Your task to perform on an android device: uninstall "Roku - Official Remote Control" Image 0: 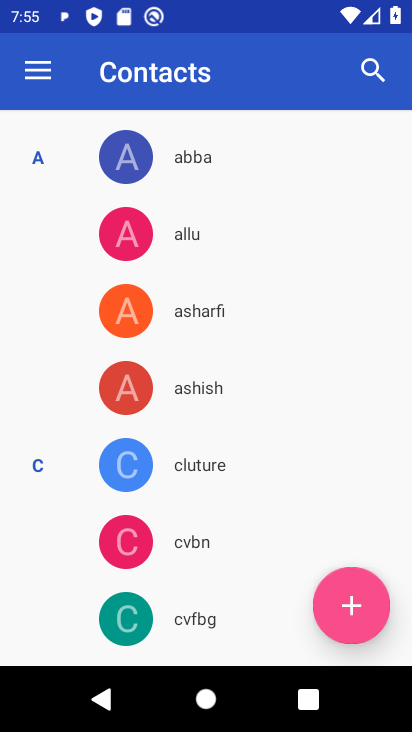
Step 0: press home button
Your task to perform on an android device: uninstall "Roku - Official Remote Control" Image 1: 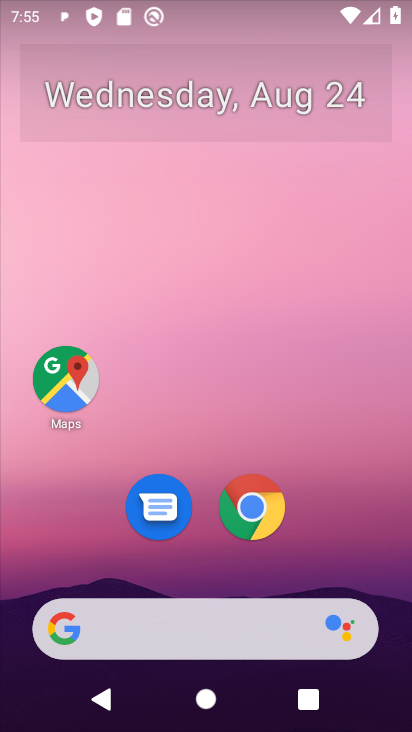
Step 1: drag from (366, 570) to (361, 107)
Your task to perform on an android device: uninstall "Roku - Official Remote Control" Image 2: 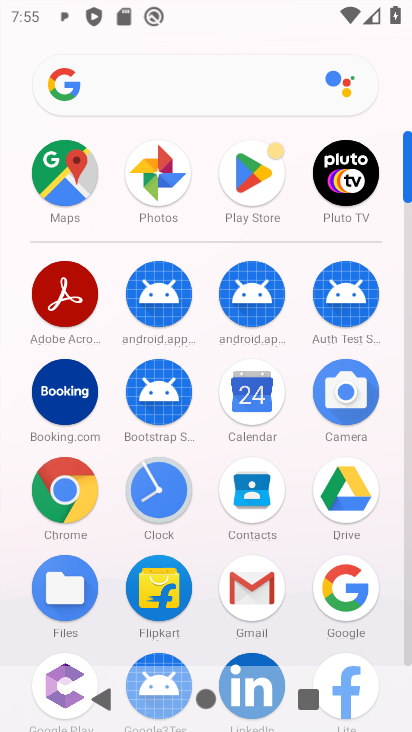
Step 2: click (251, 187)
Your task to perform on an android device: uninstall "Roku - Official Remote Control" Image 3: 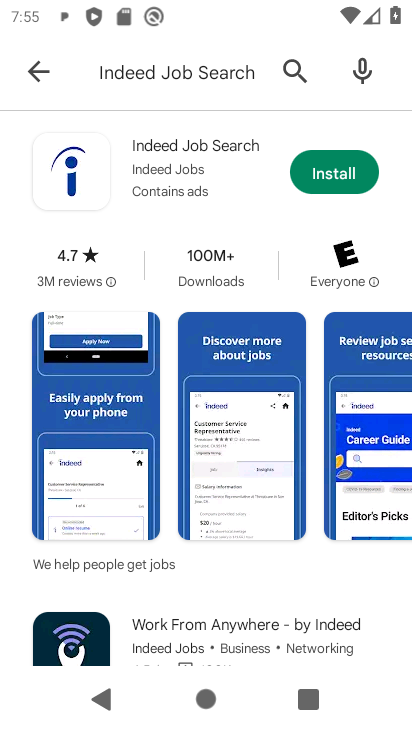
Step 3: press back button
Your task to perform on an android device: uninstall "Roku - Official Remote Control" Image 4: 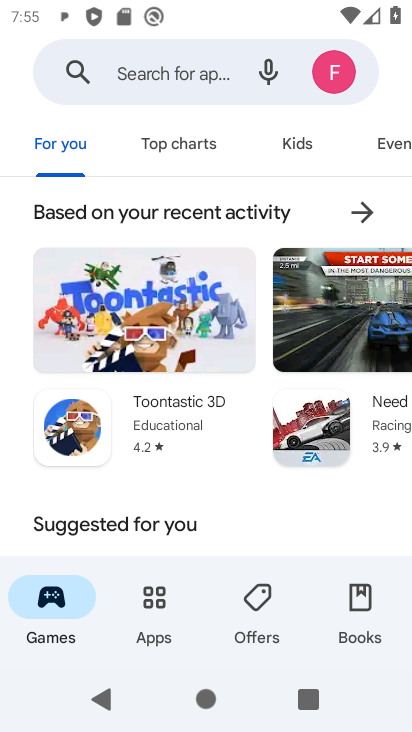
Step 4: click (189, 70)
Your task to perform on an android device: uninstall "Roku - Official Remote Control" Image 5: 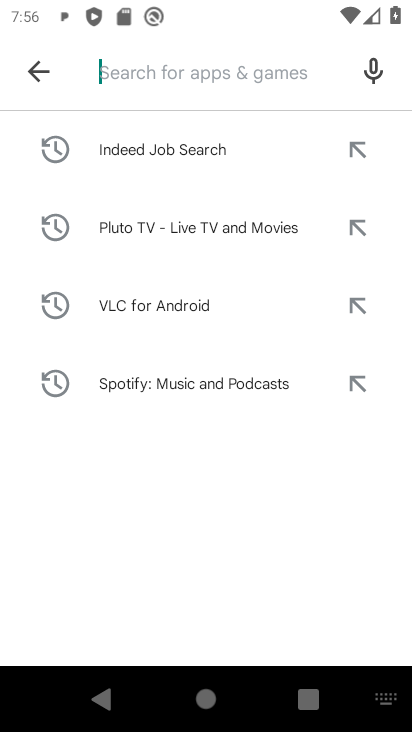
Step 5: type "Roku - Official Remote Control"
Your task to perform on an android device: uninstall "Roku - Official Remote Control" Image 6: 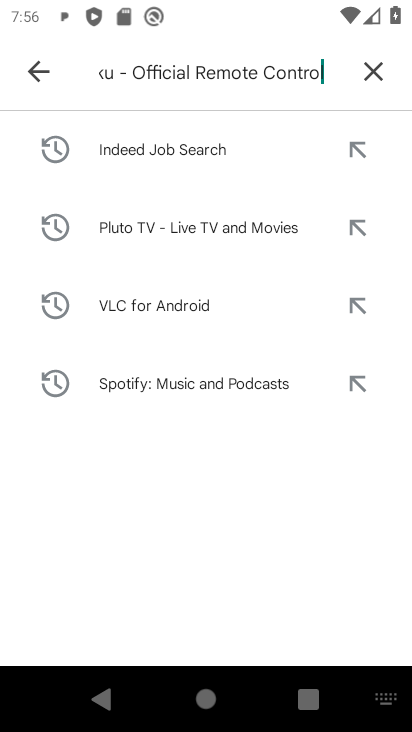
Step 6: press enter
Your task to perform on an android device: uninstall "Roku - Official Remote Control" Image 7: 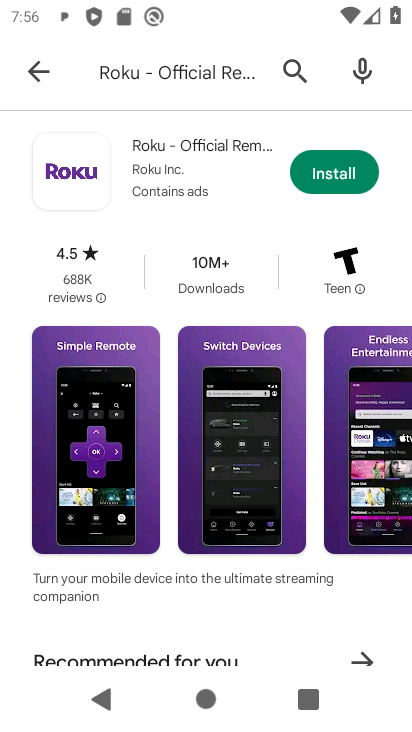
Step 7: task complete